Your task to perform on an android device: Open Chrome and go to settings Image 0: 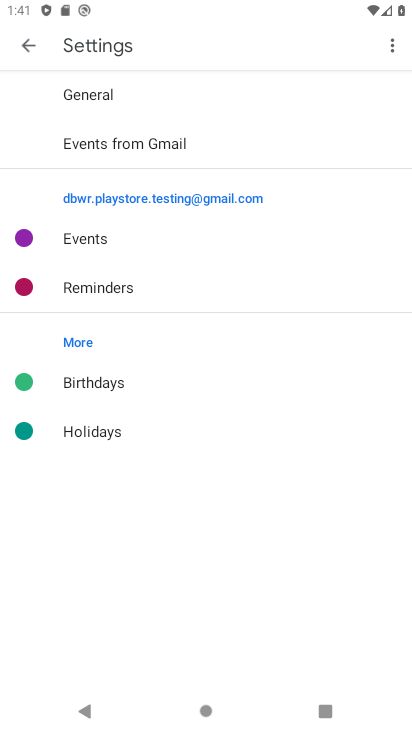
Step 0: press home button
Your task to perform on an android device: Open Chrome and go to settings Image 1: 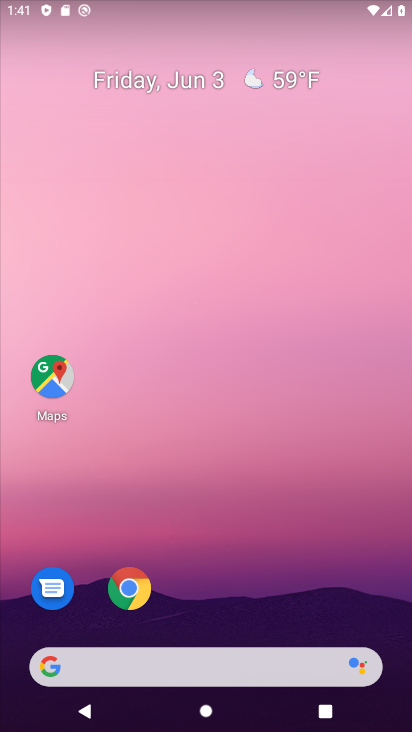
Step 1: click (133, 580)
Your task to perform on an android device: Open Chrome and go to settings Image 2: 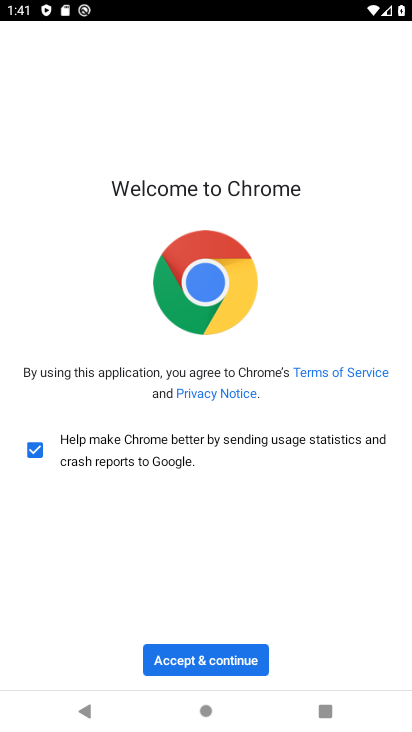
Step 2: click (169, 662)
Your task to perform on an android device: Open Chrome and go to settings Image 3: 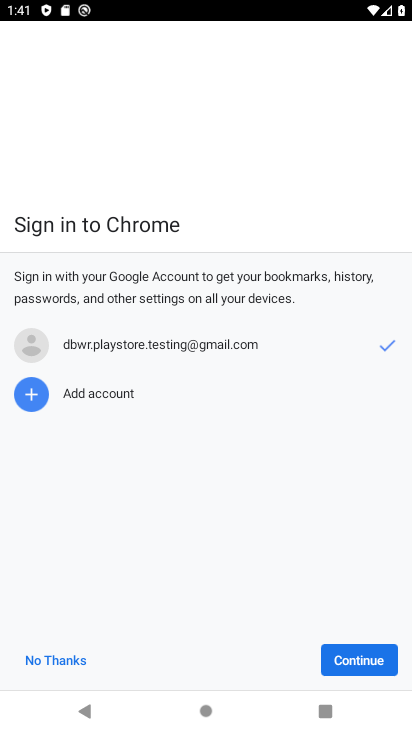
Step 3: click (336, 668)
Your task to perform on an android device: Open Chrome and go to settings Image 4: 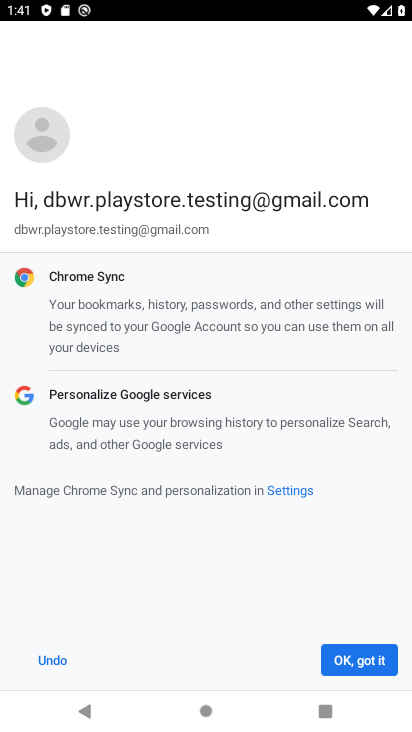
Step 4: click (343, 664)
Your task to perform on an android device: Open Chrome and go to settings Image 5: 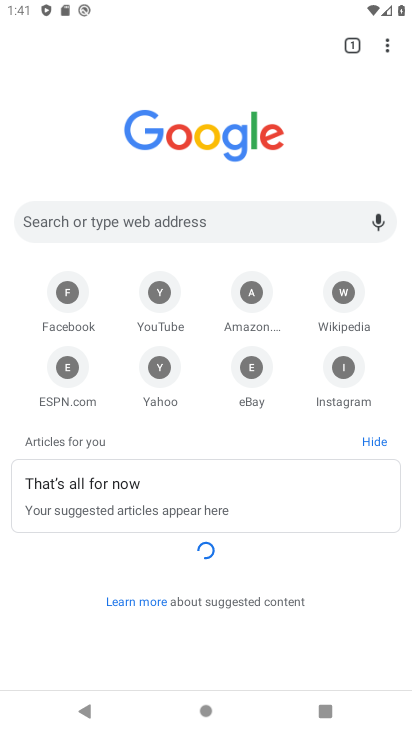
Step 5: click (388, 55)
Your task to perform on an android device: Open Chrome and go to settings Image 6: 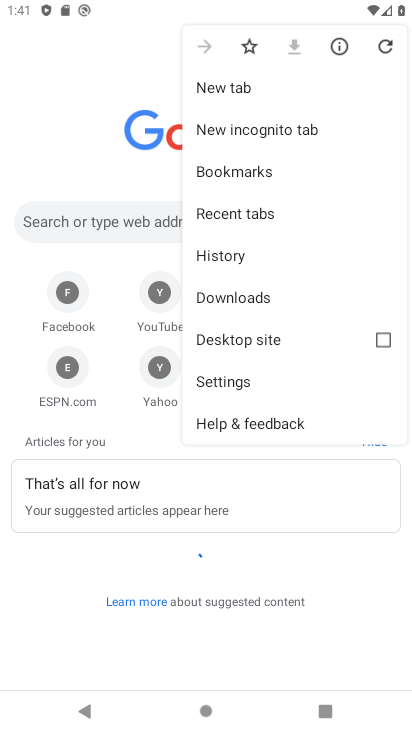
Step 6: click (254, 387)
Your task to perform on an android device: Open Chrome and go to settings Image 7: 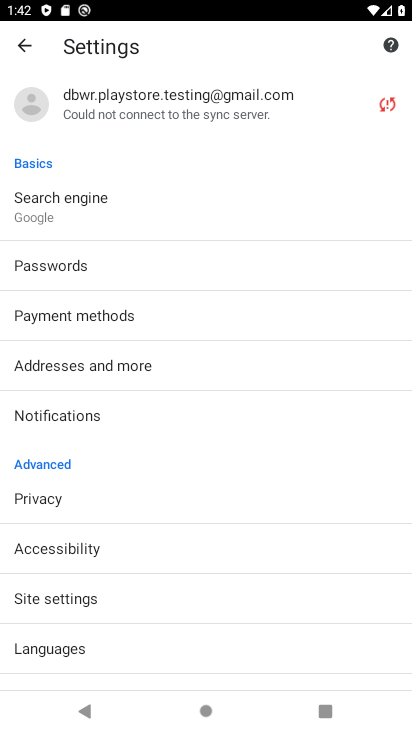
Step 7: drag from (181, 469) to (168, 190)
Your task to perform on an android device: Open Chrome and go to settings Image 8: 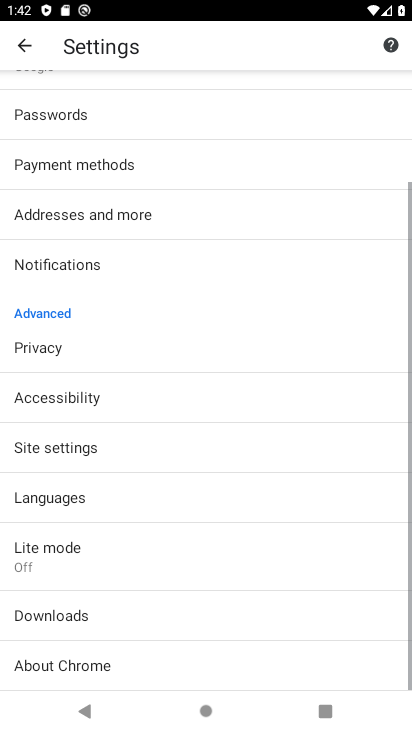
Step 8: click (85, 456)
Your task to perform on an android device: Open Chrome and go to settings Image 9: 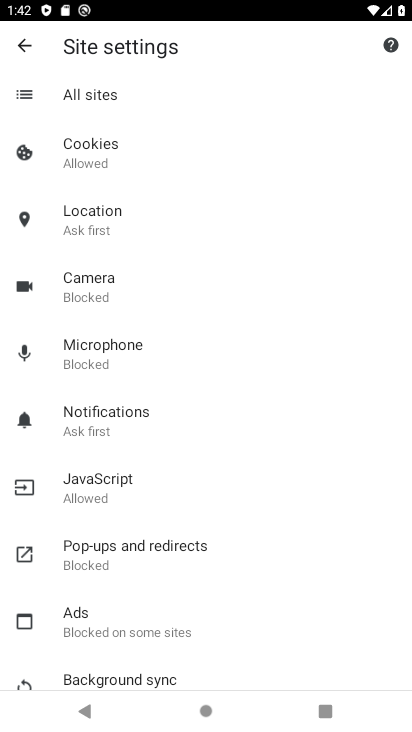
Step 9: task complete